Your task to perform on an android device: Open calendar and show me the fourth week of next month Image 0: 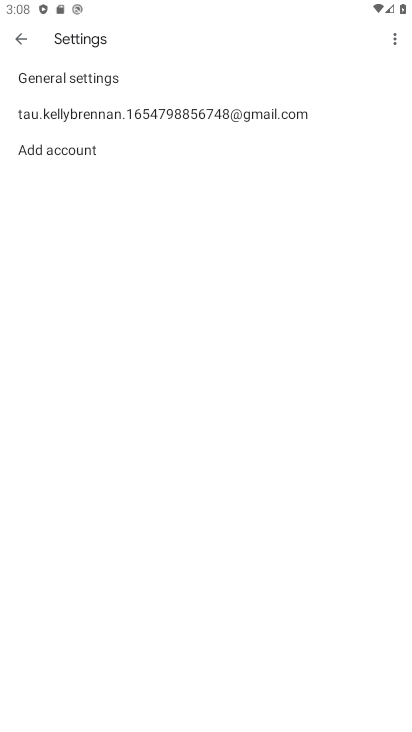
Step 0: press home button
Your task to perform on an android device: Open calendar and show me the fourth week of next month Image 1: 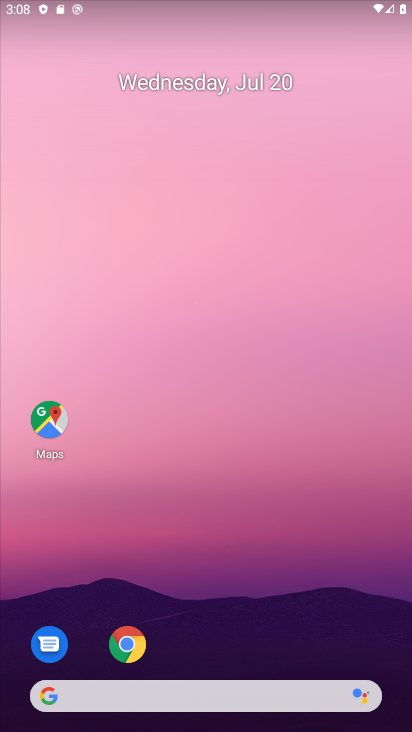
Step 1: drag from (14, 683) to (178, 270)
Your task to perform on an android device: Open calendar and show me the fourth week of next month Image 2: 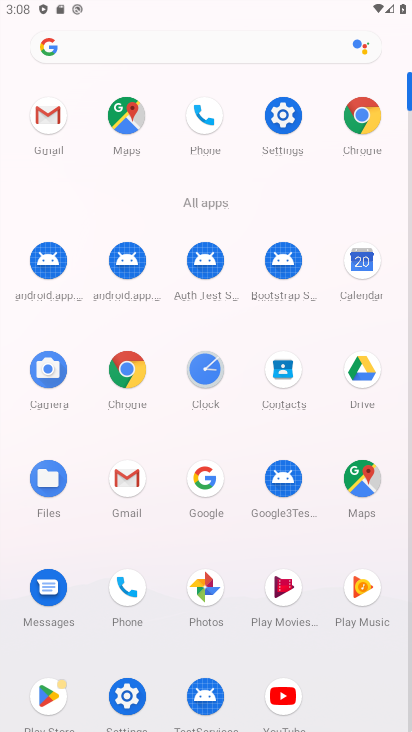
Step 2: click (357, 260)
Your task to perform on an android device: Open calendar and show me the fourth week of next month Image 3: 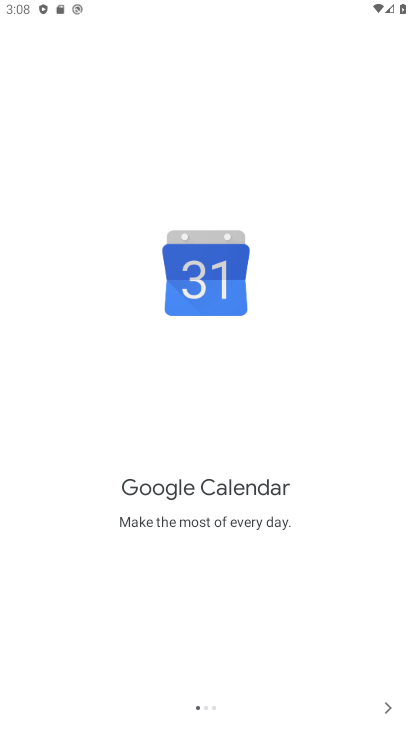
Step 3: click (393, 705)
Your task to perform on an android device: Open calendar and show me the fourth week of next month Image 4: 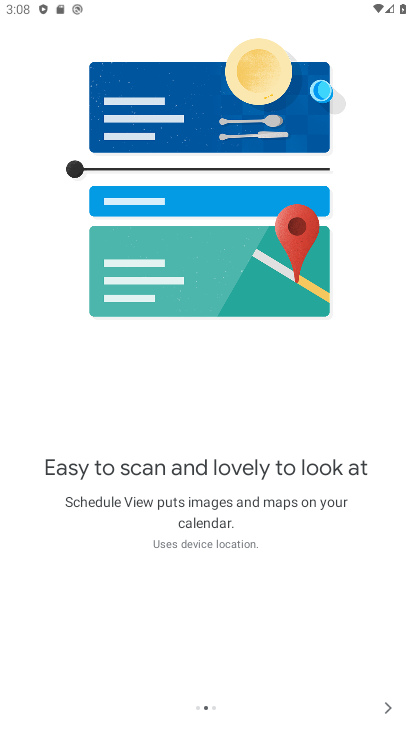
Step 4: click (393, 705)
Your task to perform on an android device: Open calendar and show me the fourth week of next month Image 5: 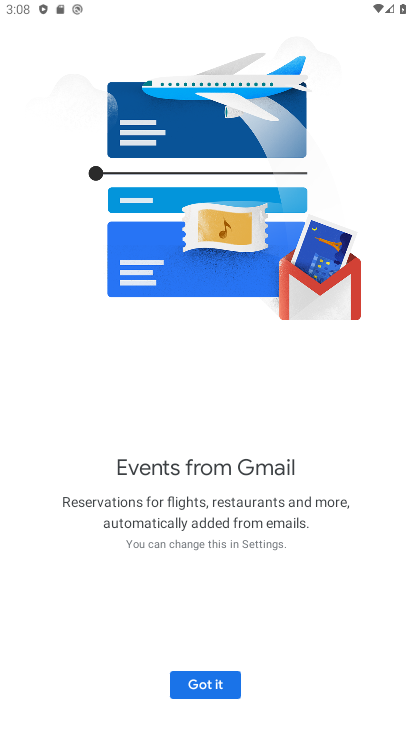
Step 5: click (198, 679)
Your task to perform on an android device: Open calendar and show me the fourth week of next month Image 6: 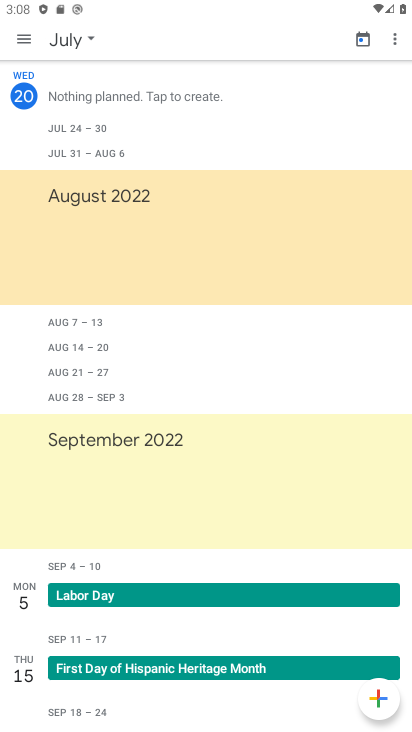
Step 6: click (66, 43)
Your task to perform on an android device: Open calendar and show me the fourth week of next month Image 7: 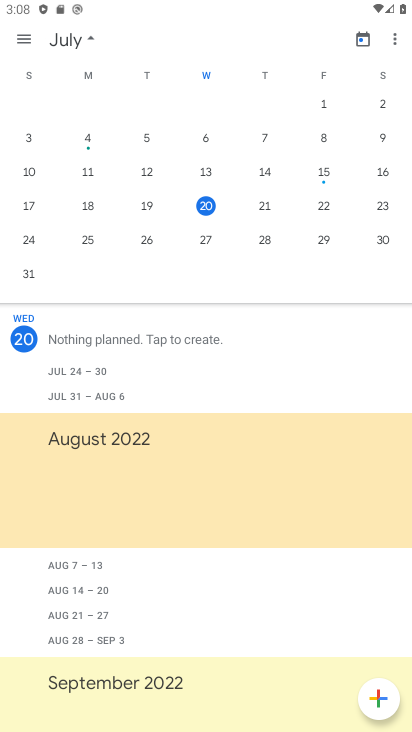
Step 7: drag from (383, 157) to (1, 173)
Your task to perform on an android device: Open calendar and show me the fourth week of next month Image 8: 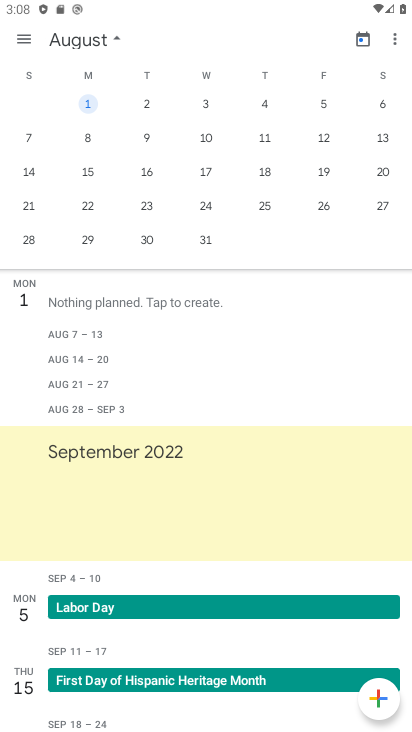
Step 8: click (92, 201)
Your task to perform on an android device: Open calendar and show me the fourth week of next month Image 9: 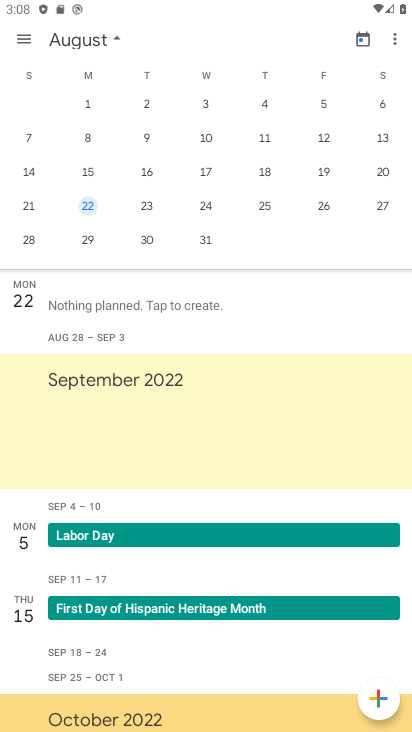
Step 9: task complete